Your task to perform on an android device: Show me recent news Image 0: 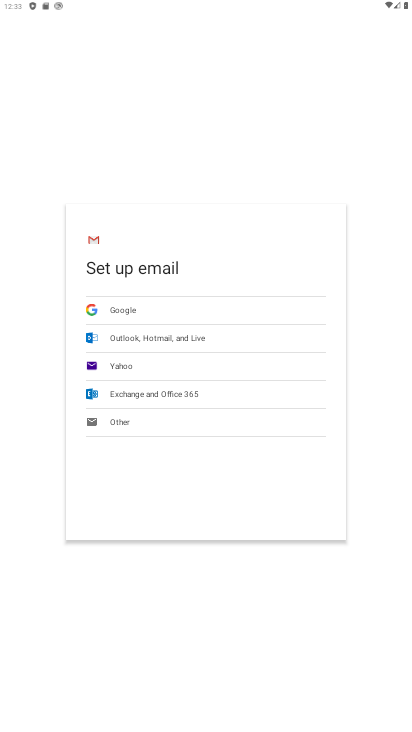
Step 0: press home button
Your task to perform on an android device: Show me recent news Image 1: 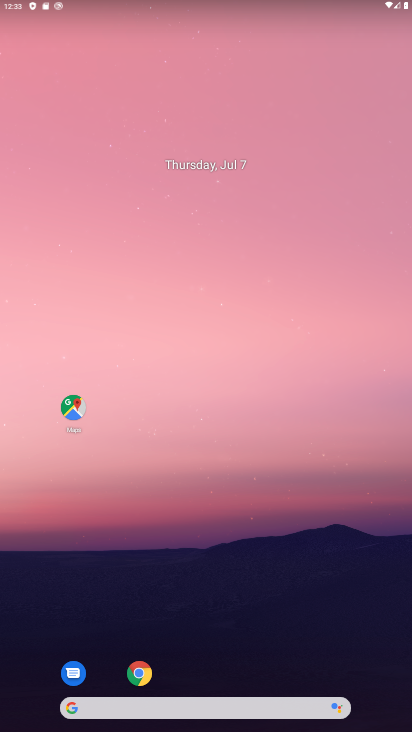
Step 1: click (195, 696)
Your task to perform on an android device: Show me recent news Image 2: 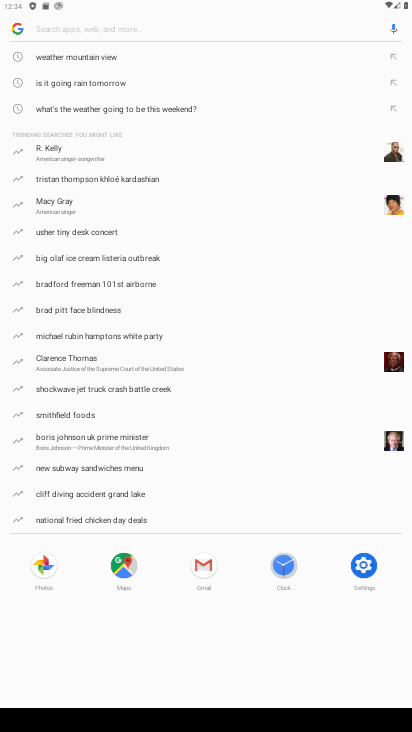
Step 2: press back button
Your task to perform on an android device: Show me recent news Image 3: 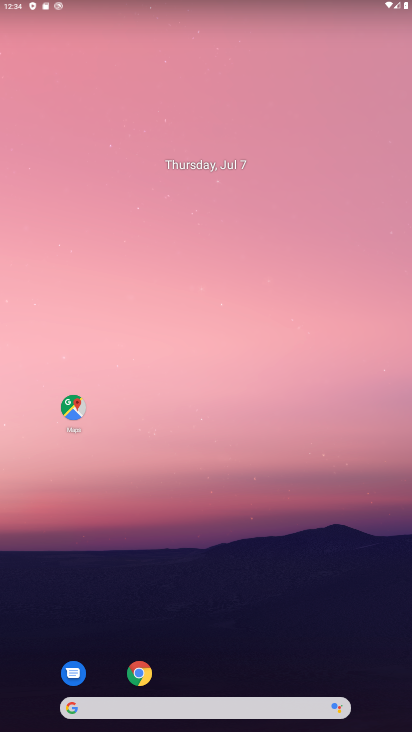
Step 3: drag from (195, 691) to (269, 87)
Your task to perform on an android device: Show me recent news Image 4: 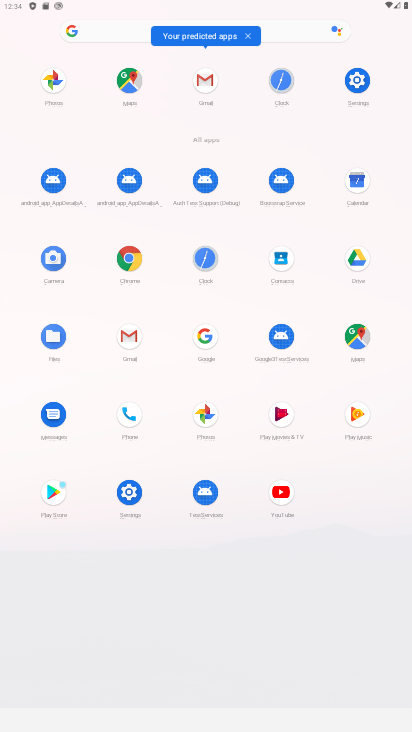
Step 4: click (132, 261)
Your task to perform on an android device: Show me recent news Image 5: 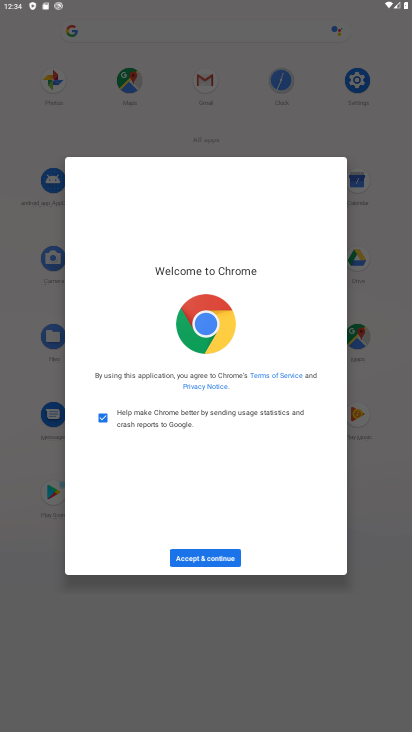
Step 5: click (212, 559)
Your task to perform on an android device: Show me recent news Image 6: 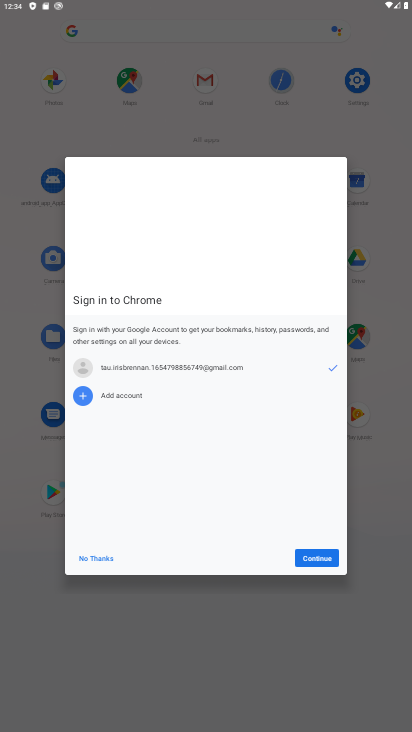
Step 6: click (316, 549)
Your task to perform on an android device: Show me recent news Image 7: 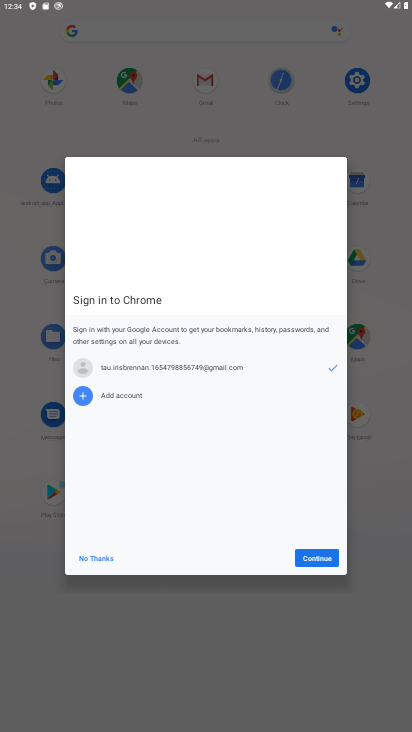
Step 7: click (317, 549)
Your task to perform on an android device: Show me recent news Image 8: 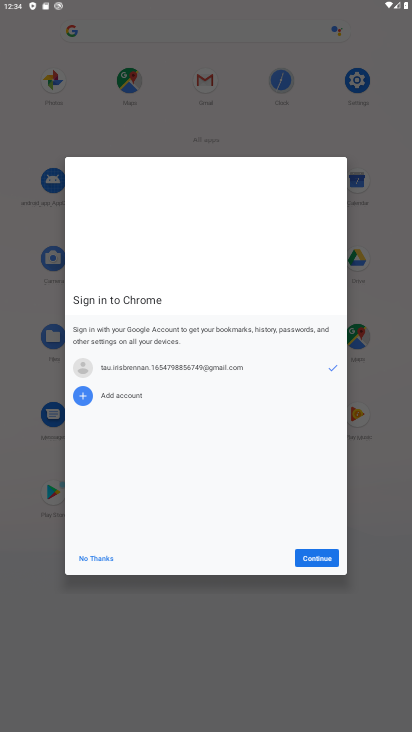
Step 8: click (333, 563)
Your task to perform on an android device: Show me recent news Image 9: 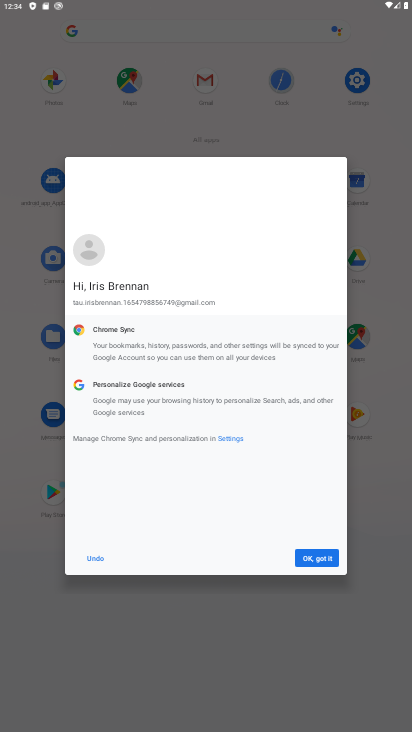
Step 9: click (321, 554)
Your task to perform on an android device: Show me recent news Image 10: 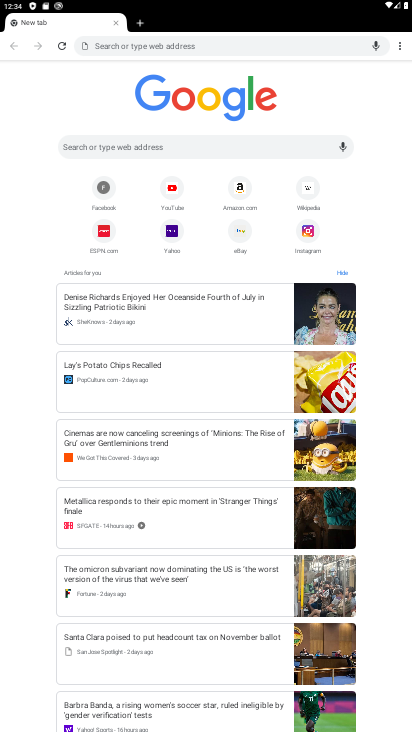
Step 10: task complete